Your task to perform on an android device: Search for 4k TVs on Best Buy. Image 0: 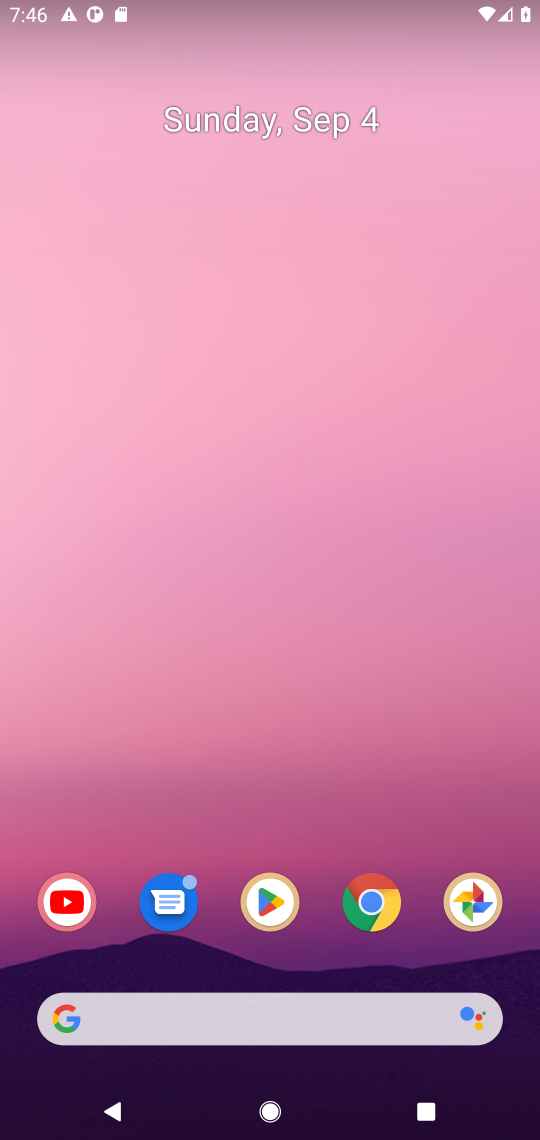
Step 0: click (499, 870)
Your task to perform on an android device: Search for 4k TVs on Best Buy. Image 1: 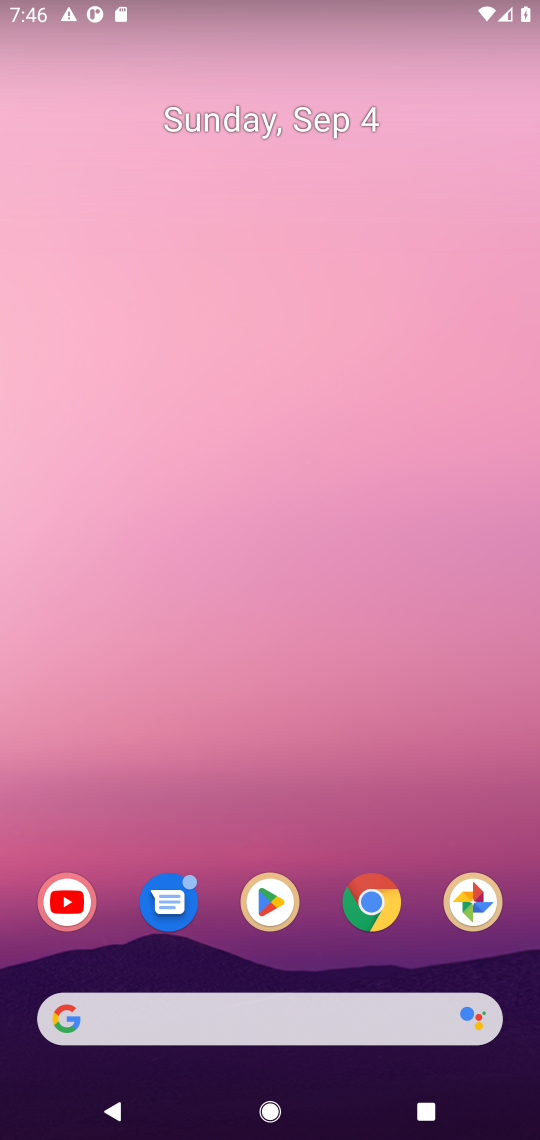
Step 1: click (466, 921)
Your task to perform on an android device: Search for 4k TVs on Best Buy. Image 2: 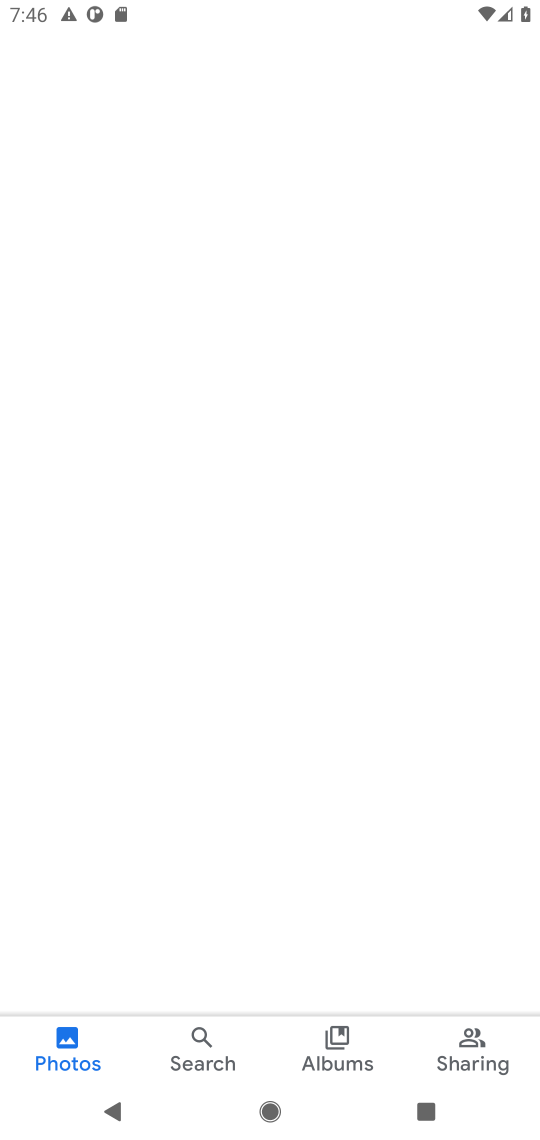
Step 2: task complete